Your task to perform on an android device: Go to sound settings Image 0: 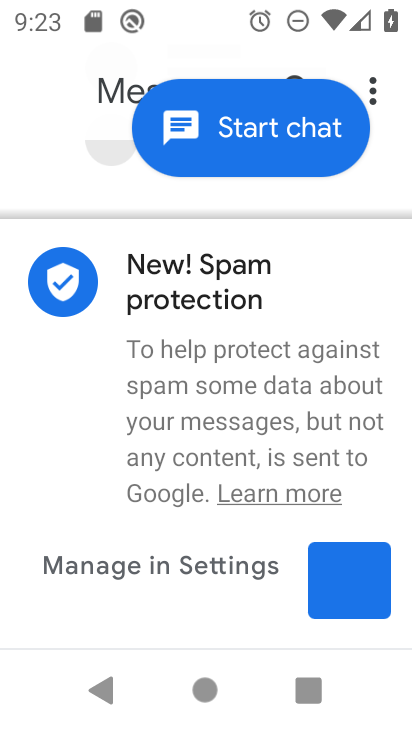
Step 0: press home button
Your task to perform on an android device: Go to sound settings Image 1: 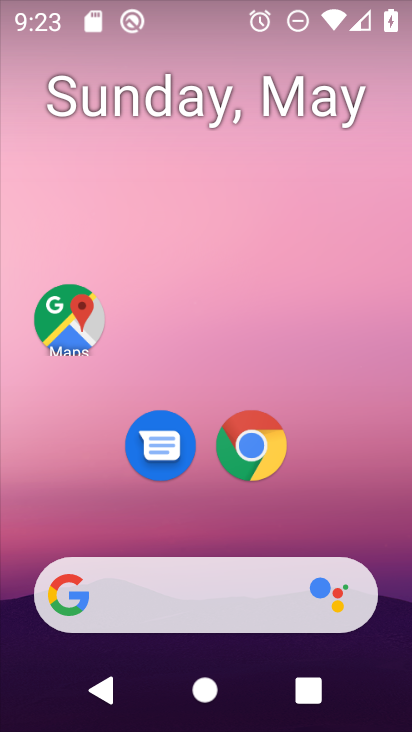
Step 1: drag from (135, 536) to (172, 196)
Your task to perform on an android device: Go to sound settings Image 2: 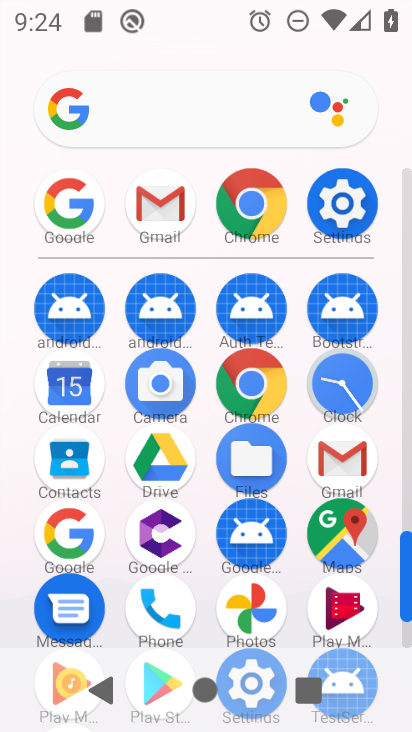
Step 2: click (338, 220)
Your task to perform on an android device: Go to sound settings Image 3: 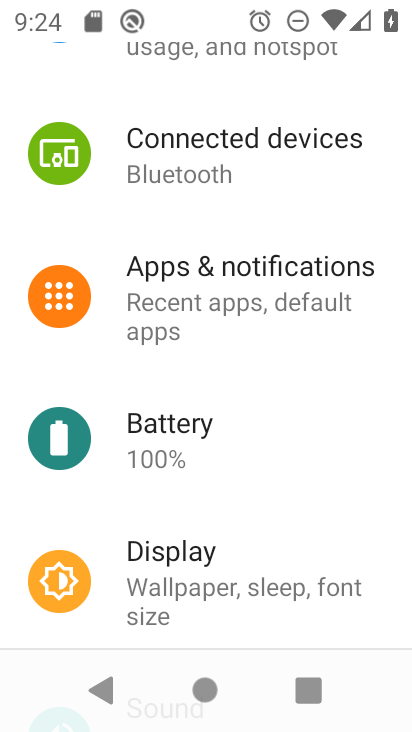
Step 3: drag from (192, 460) to (200, 273)
Your task to perform on an android device: Go to sound settings Image 4: 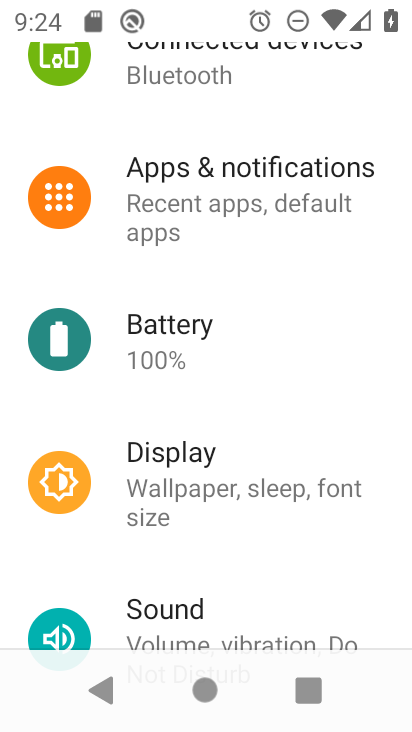
Step 4: drag from (191, 502) to (210, 341)
Your task to perform on an android device: Go to sound settings Image 5: 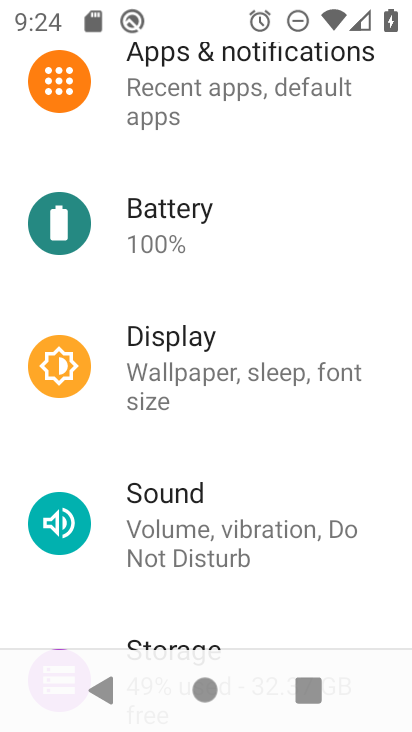
Step 5: click (198, 523)
Your task to perform on an android device: Go to sound settings Image 6: 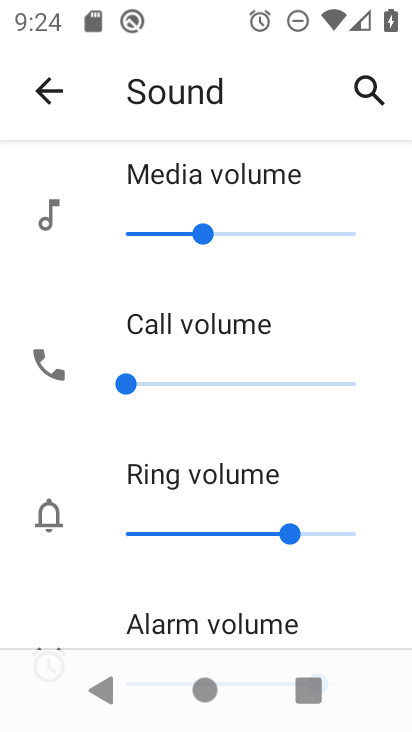
Step 6: task complete